Your task to perform on an android device: open the mobile data screen to see how much data has been used Image 0: 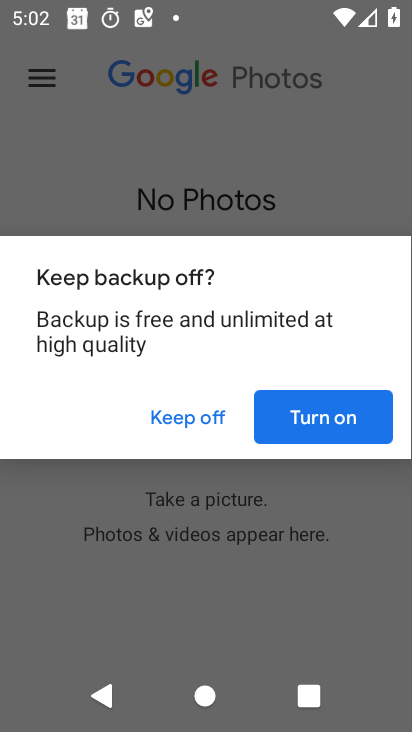
Step 0: press home button
Your task to perform on an android device: open the mobile data screen to see how much data has been used Image 1: 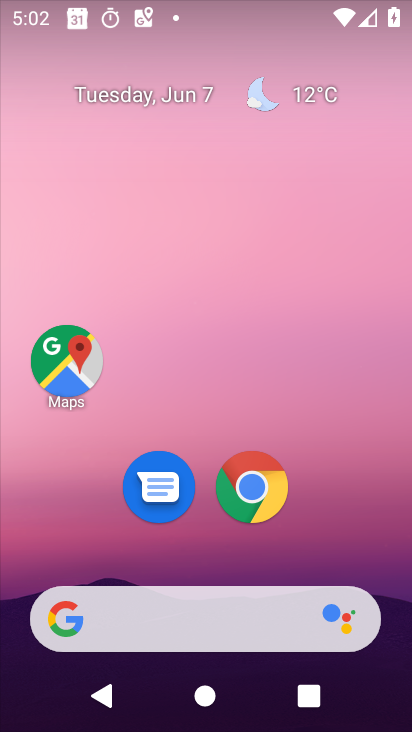
Step 1: drag from (190, 556) to (264, 0)
Your task to perform on an android device: open the mobile data screen to see how much data has been used Image 2: 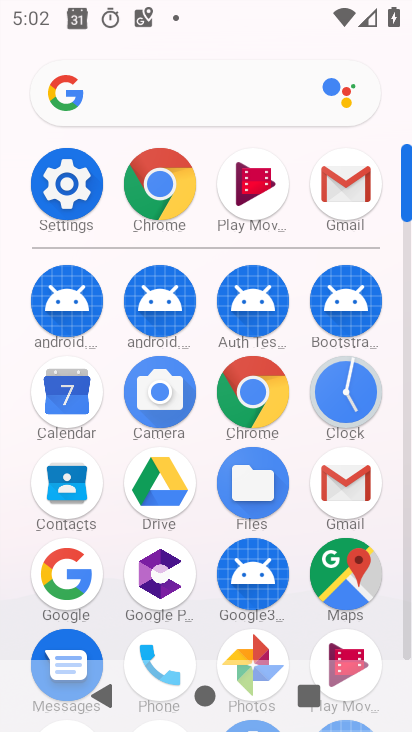
Step 2: click (66, 172)
Your task to perform on an android device: open the mobile data screen to see how much data has been used Image 3: 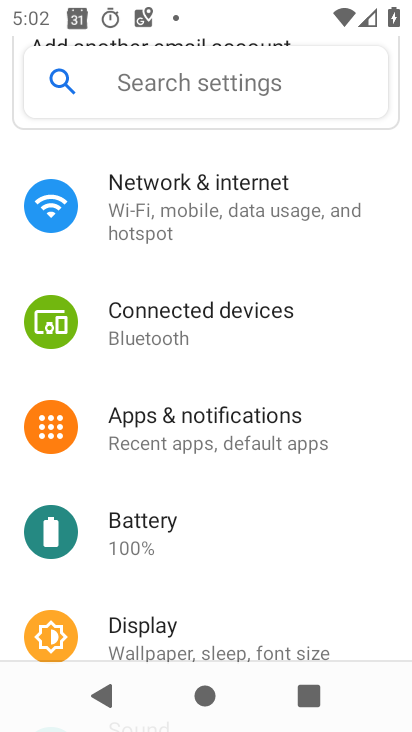
Step 3: click (190, 192)
Your task to perform on an android device: open the mobile data screen to see how much data has been used Image 4: 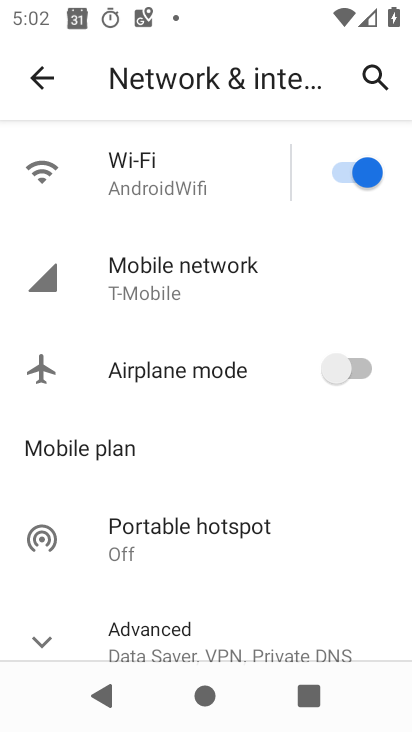
Step 4: drag from (151, 623) to (240, 253)
Your task to perform on an android device: open the mobile data screen to see how much data has been used Image 5: 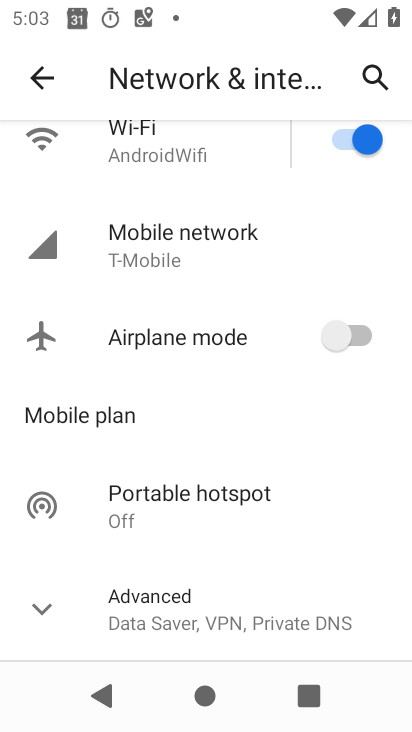
Step 5: click (205, 616)
Your task to perform on an android device: open the mobile data screen to see how much data has been used Image 6: 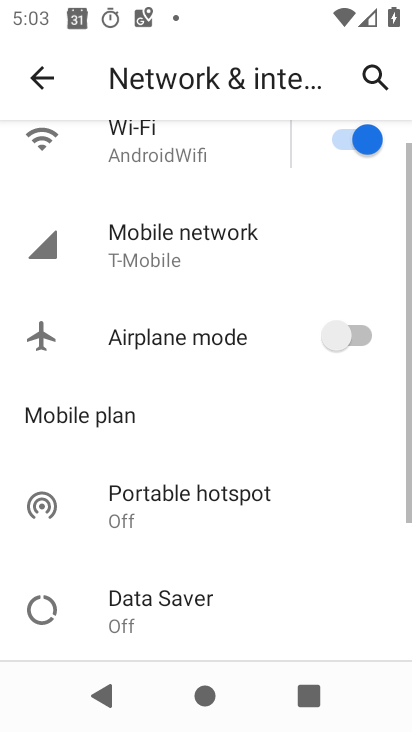
Step 6: drag from (204, 605) to (243, 80)
Your task to perform on an android device: open the mobile data screen to see how much data has been used Image 7: 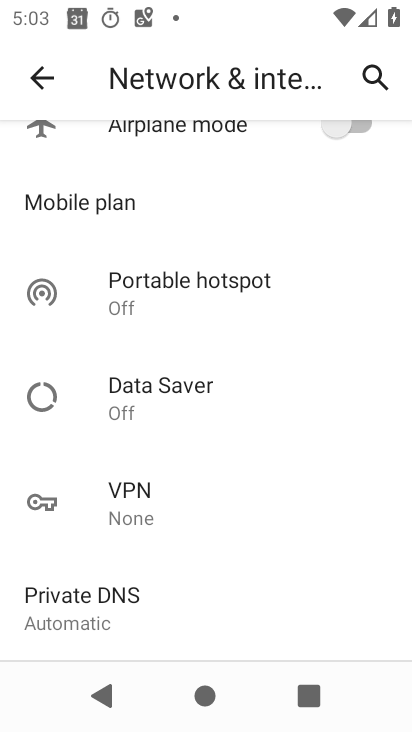
Step 7: drag from (252, 223) to (178, 653)
Your task to perform on an android device: open the mobile data screen to see how much data has been used Image 8: 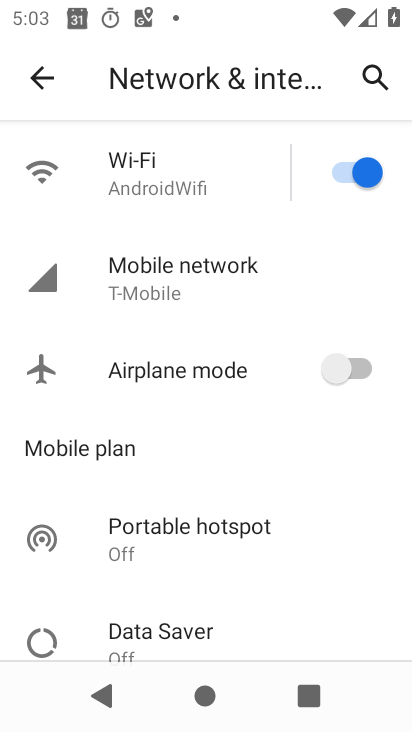
Step 8: click (177, 291)
Your task to perform on an android device: open the mobile data screen to see how much data has been used Image 9: 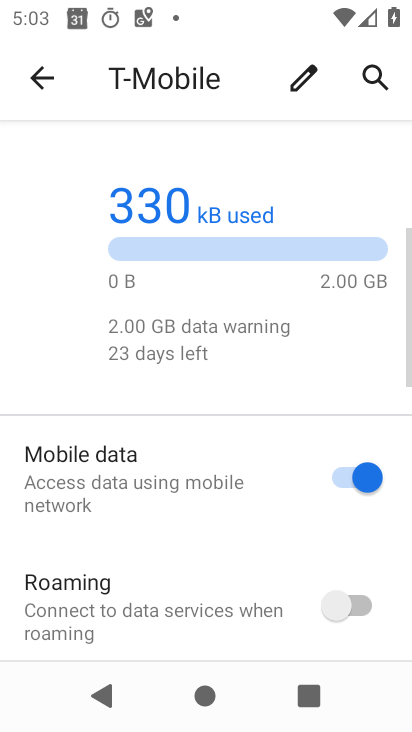
Step 9: drag from (126, 607) to (226, 152)
Your task to perform on an android device: open the mobile data screen to see how much data has been used Image 10: 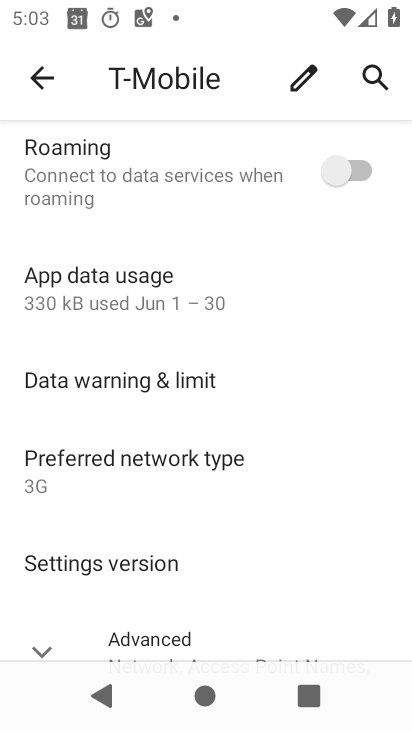
Step 10: click (118, 299)
Your task to perform on an android device: open the mobile data screen to see how much data has been used Image 11: 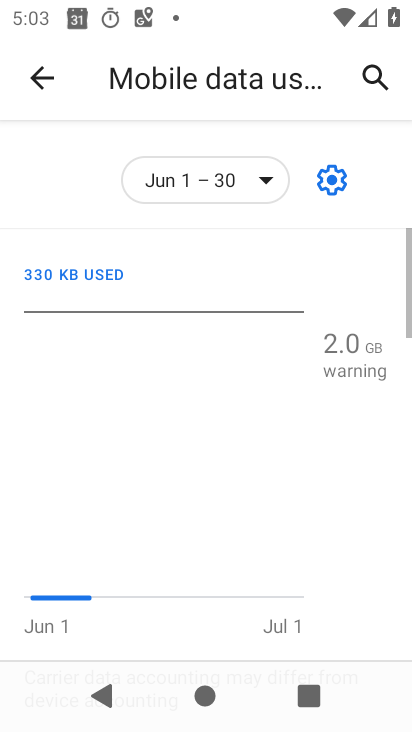
Step 11: task complete